Your task to perform on an android device: Open Google Chrome Image 0: 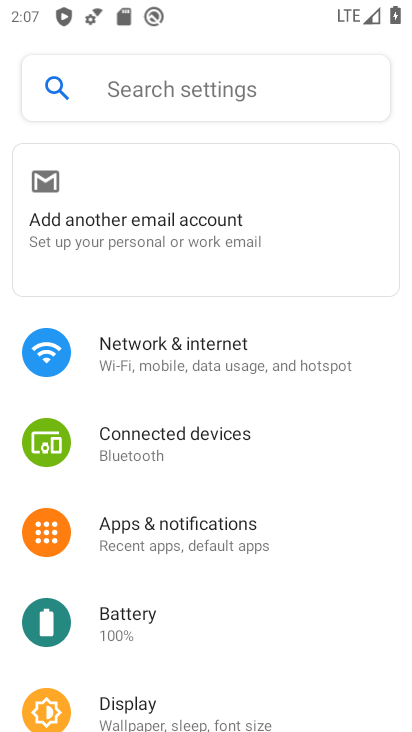
Step 0: press home button
Your task to perform on an android device: Open Google Chrome Image 1: 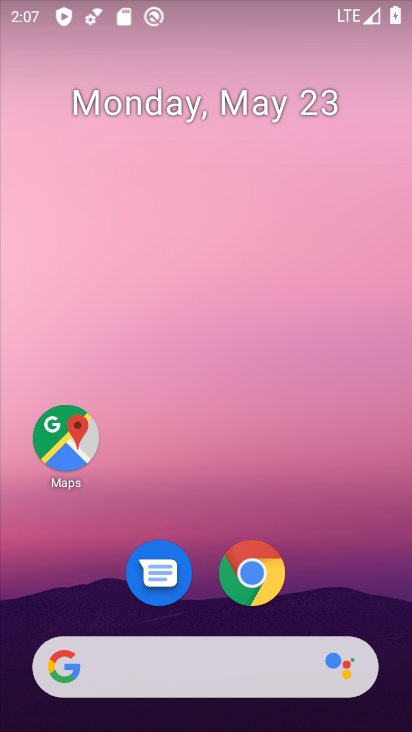
Step 1: click (264, 574)
Your task to perform on an android device: Open Google Chrome Image 2: 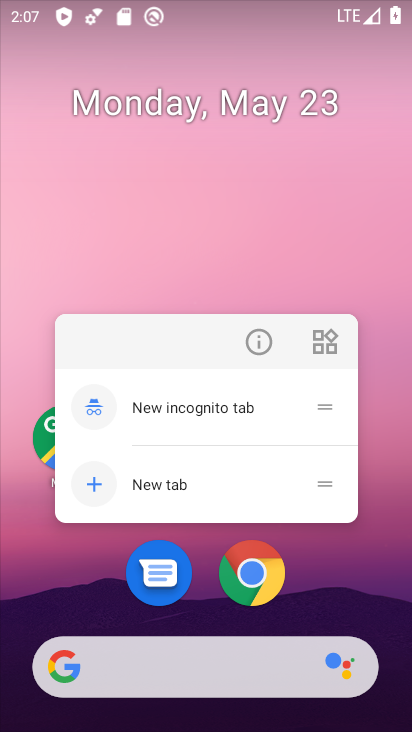
Step 2: click (242, 572)
Your task to perform on an android device: Open Google Chrome Image 3: 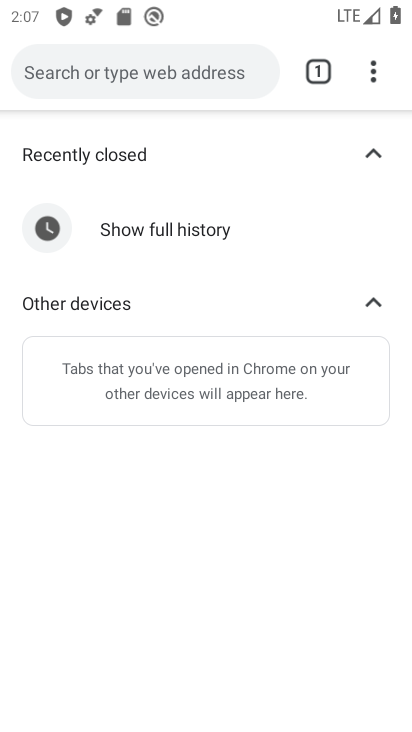
Step 3: click (241, 571)
Your task to perform on an android device: Open Google Chrome Image 4: 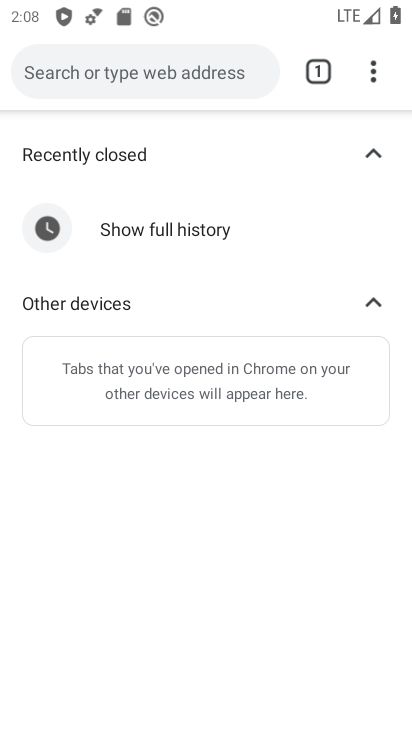
Step 4: task complete